Your task to perform on an android device: check data usage Image 0: 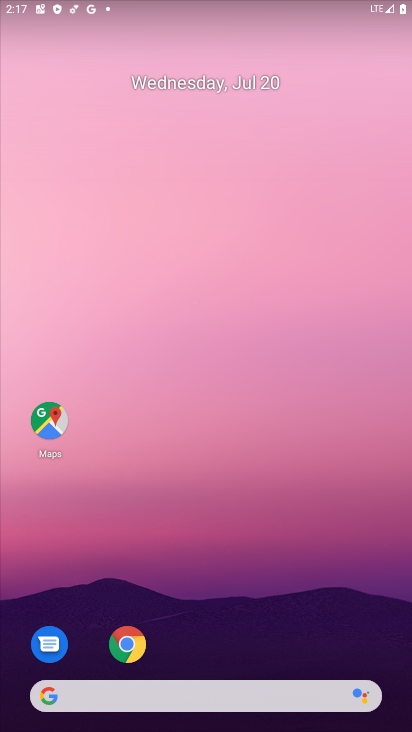
Step 0: drag from (237, 700) to (360, 1)
Your task to perform on an android device: check data usage Image 1: 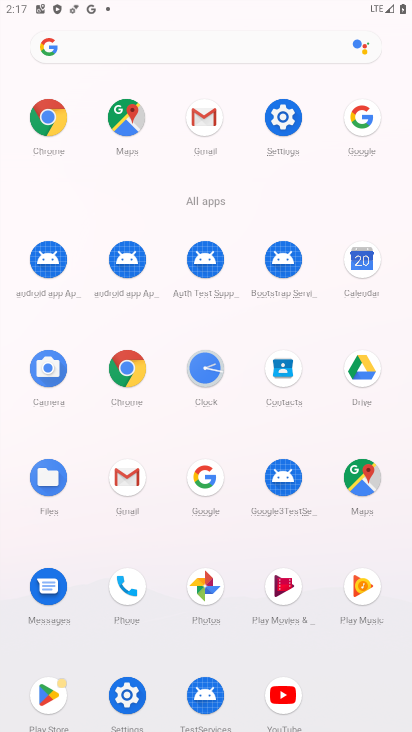
Step 1: click (285, 117)
Your task to perform on an android device: check data usage Image 2: 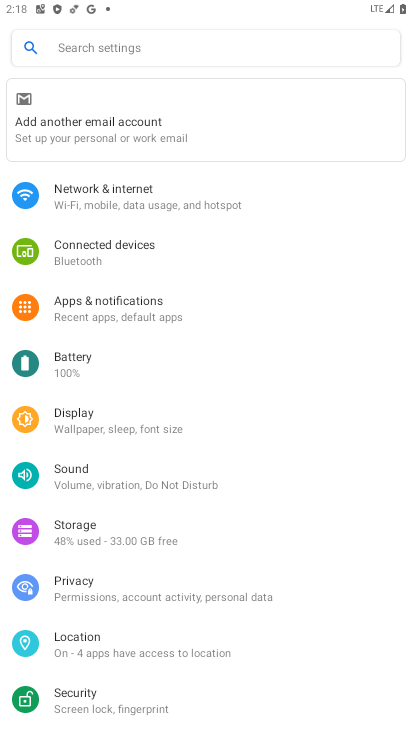
Step 2: click (206, 204)
Your task to perform on an android device: check data usage Image 3: 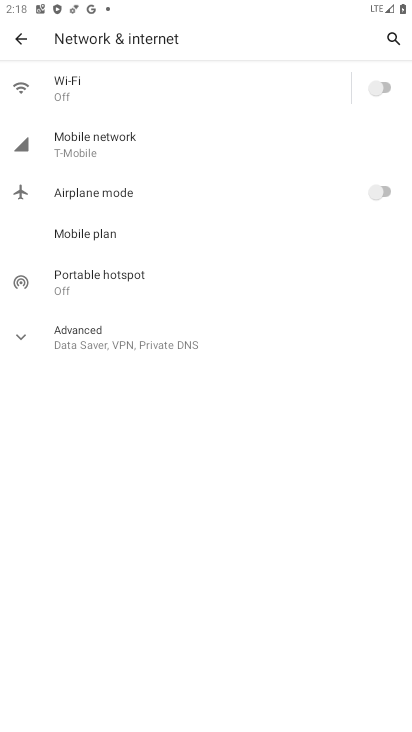
Step 3: click (130, 138)
Your task to perform on an android device: check data usage Image 4: 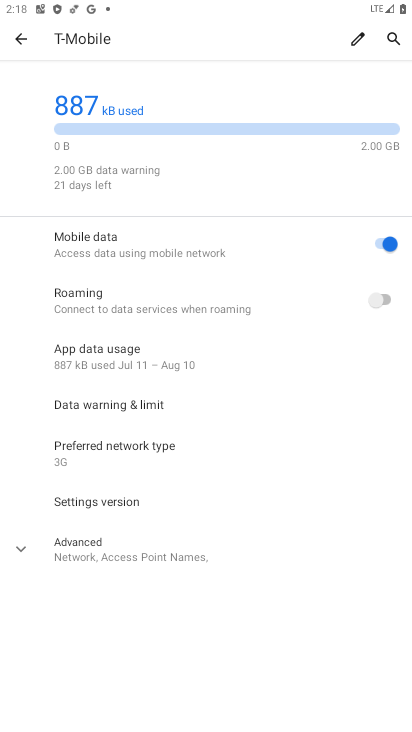
Step 4: task complete